Your task to perform on an android device: Open Chrome and go to the settings page Image 0: 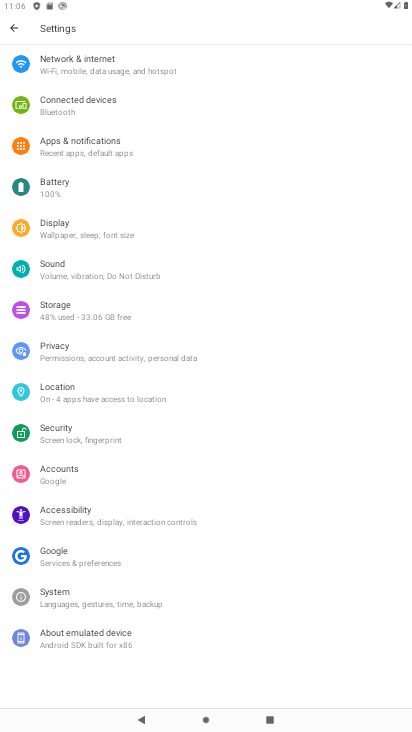
Step 0: press home button
Your task to perform on an android device: Open Chrome and go to the settings page Image 1: 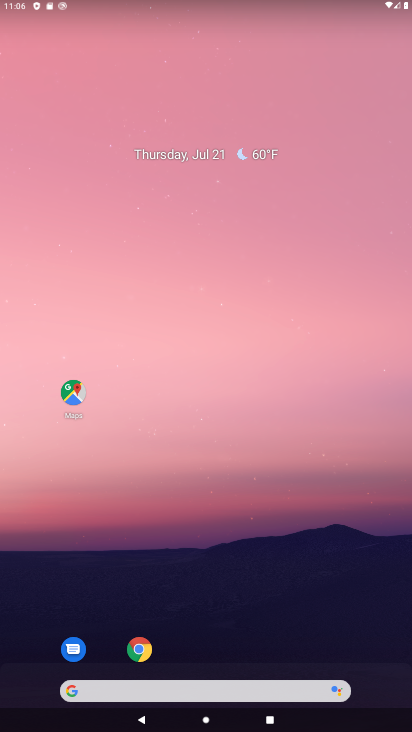
Step 1: click (143, 648)
Your task to perform on an android device: Open Chrome and go to the settings page Image 2: 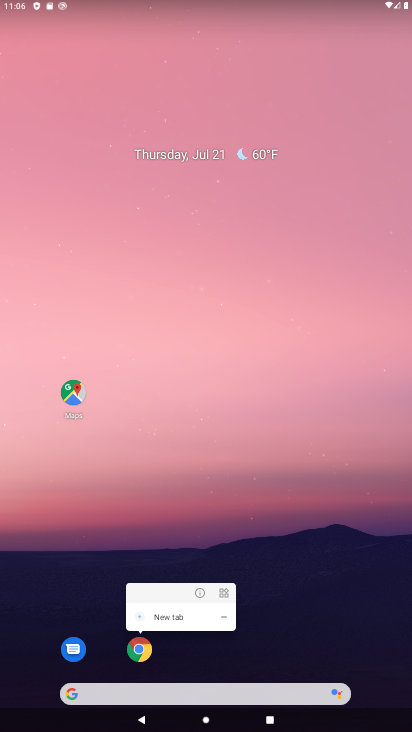
Step 2: click (143, 648)
Your task to perform on an android device: Open Chrome and go to the settings page Image 3: 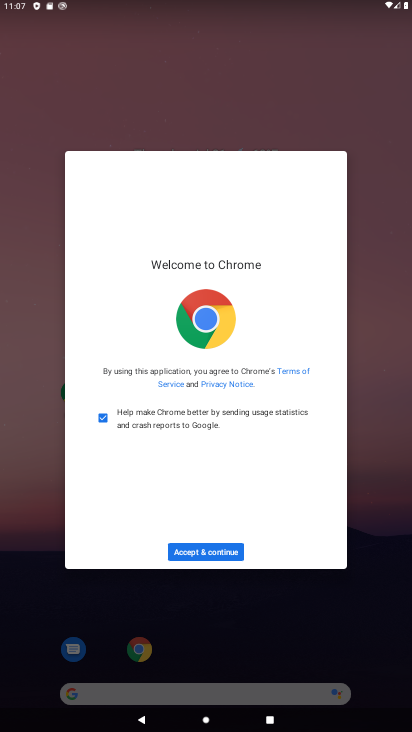
Step 3: click (188, 549)
Your task to perform on an android device: Open Chrome and go to the settings page Image 4: 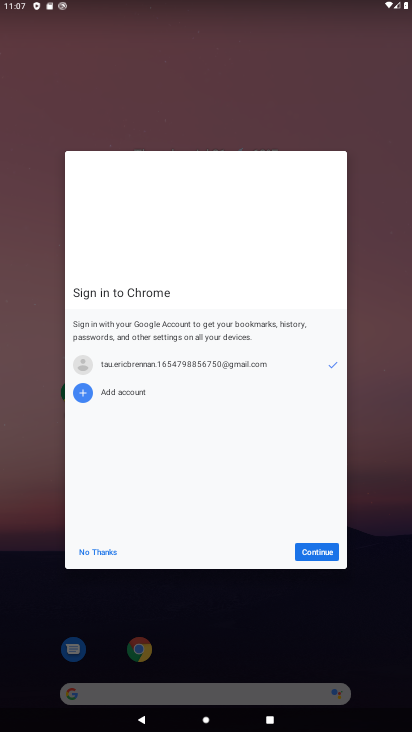
Step 4: click (332, 553)
Your task to perform on an android device: Open Chrome and go to the settings page Image 5: 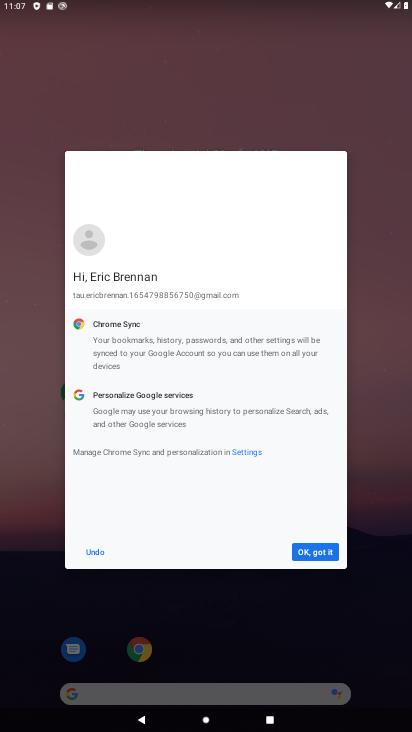
Step 5: click (310, 554)
Your task to perform on an android device: Open Chrome and go to the settings page Image 6: 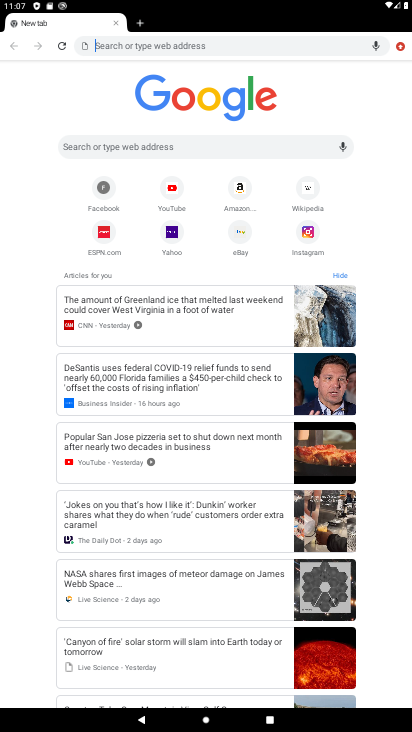
Step 6: click (252, 46)
Your task to perform on an android device: Open Chrome and go to the settings page Image 7: 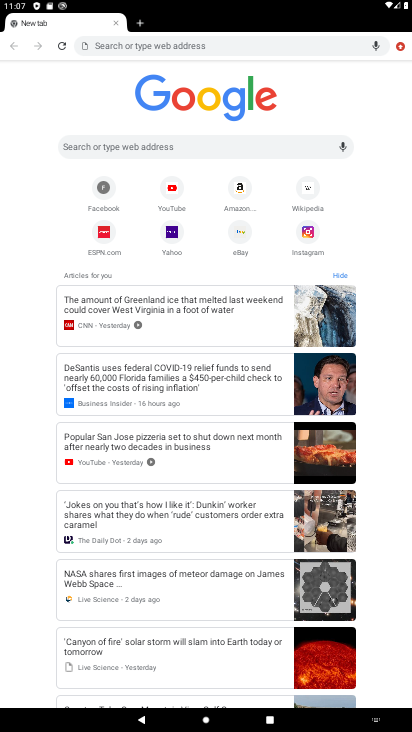
Step 7: click (145, 26)
Your task to perform on an android device: Open Chrome and go to the settings page Image 8: 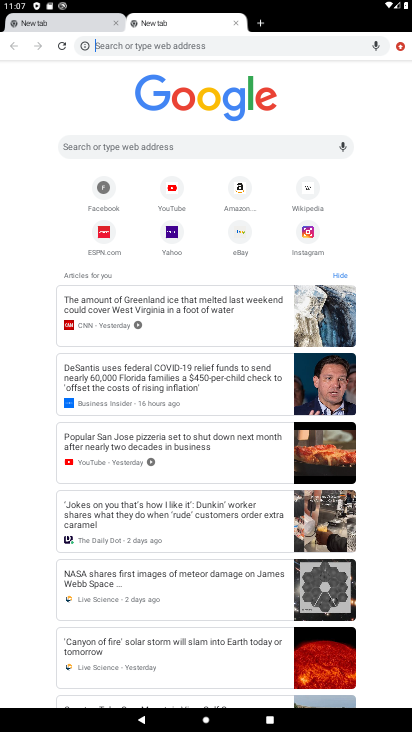
Step 8: click (346, 119)
Your task to perform on an android device: Open Chrome and go to the settings page Image 9: 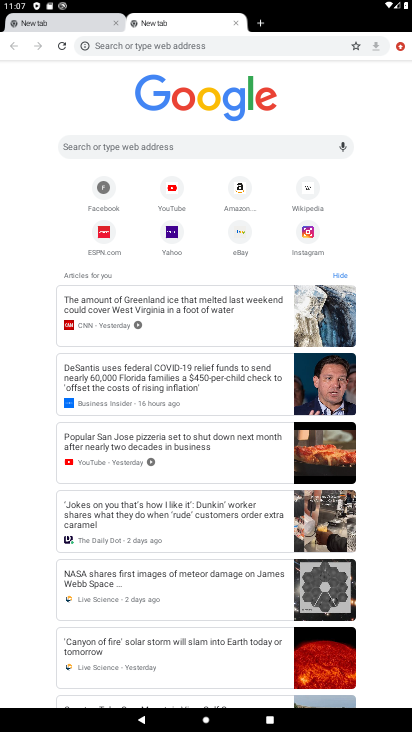
Step 9: task complete